Your task to perform on an android device: turn off location history Image 0: 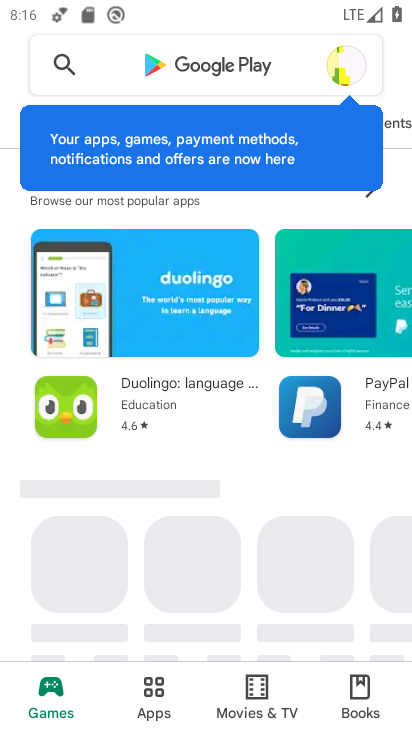
Step 0: press home button
Your task to perform on an android device: turn off location history Image 1: 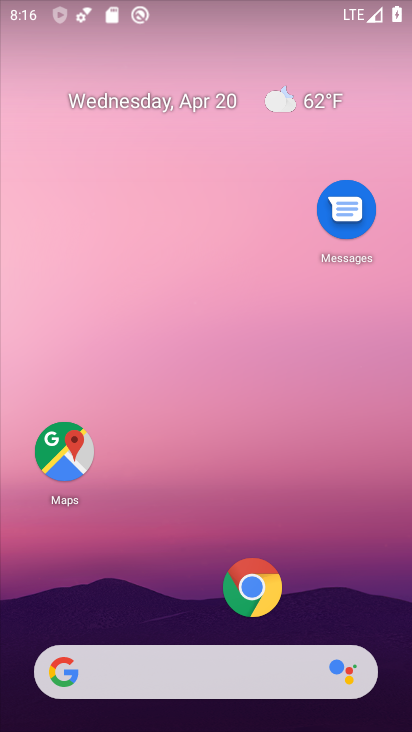
Step 1: drag from (149, 683) to (268, 166)
Your task to perform on an android device: turn off location history Image 2: 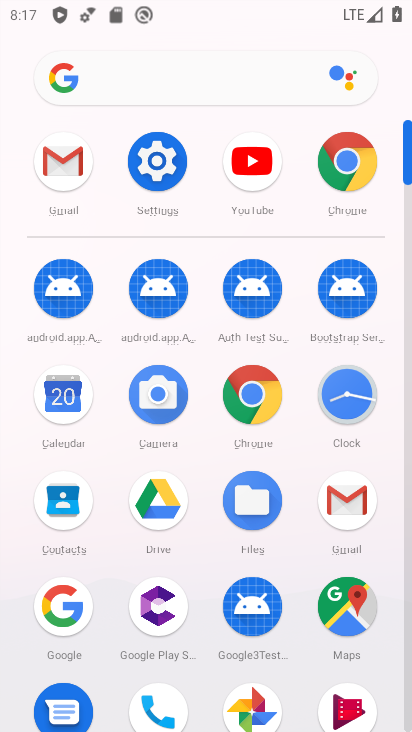
Step 2: click (157, 159)
Your task to perform on an android device: turn off location history Image 3: 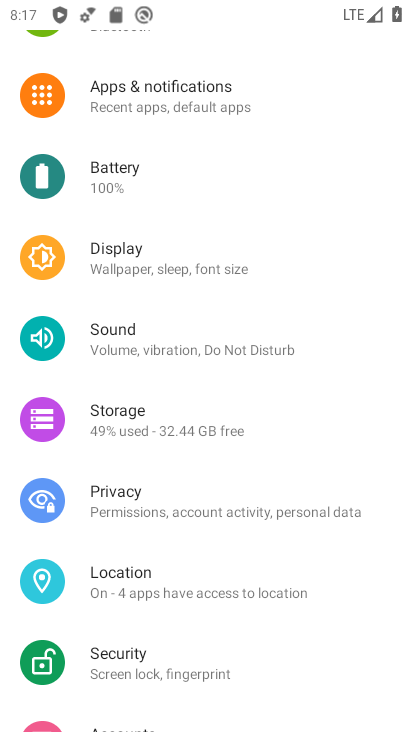
Step 3: click (141, 582)
Your task to perform on an android device: turn off location history Image 4: 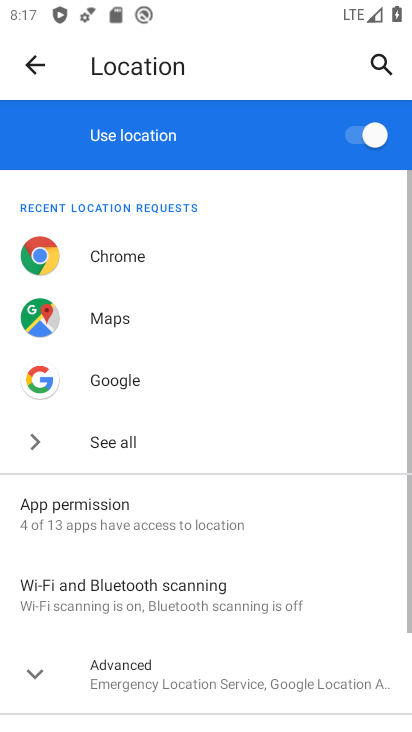
Step 4: click (102, 661)
Your task to perform on an android device: turn off location history Image 5: 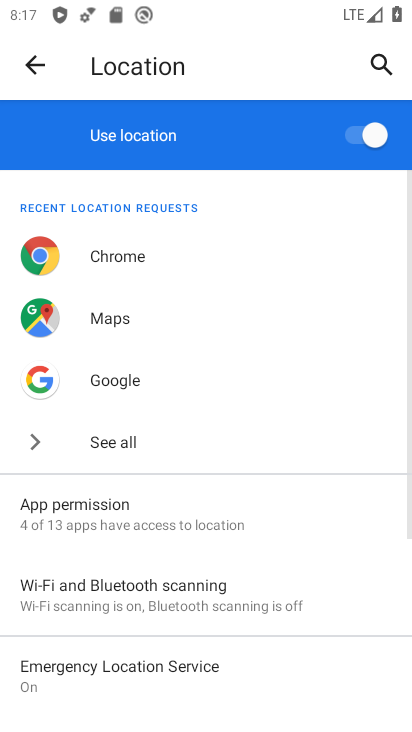
Step 5: drag from (236, 546) to (320, 142)
Your task to perform on an android device: turn off location history Image 6: 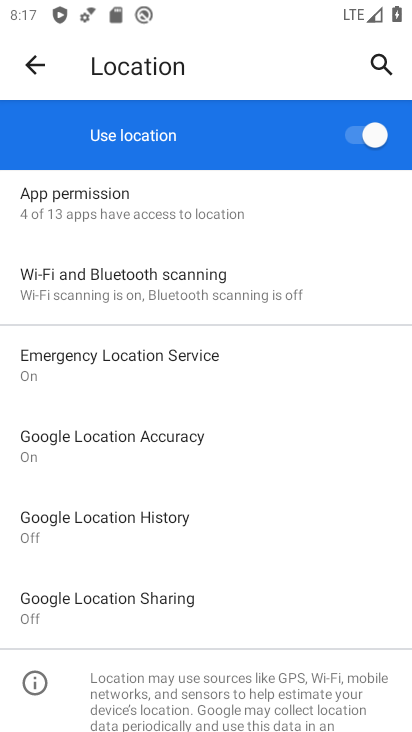
Step 6: click (133, 516)
Your task to perform on an android device: turn off location history Image 7: 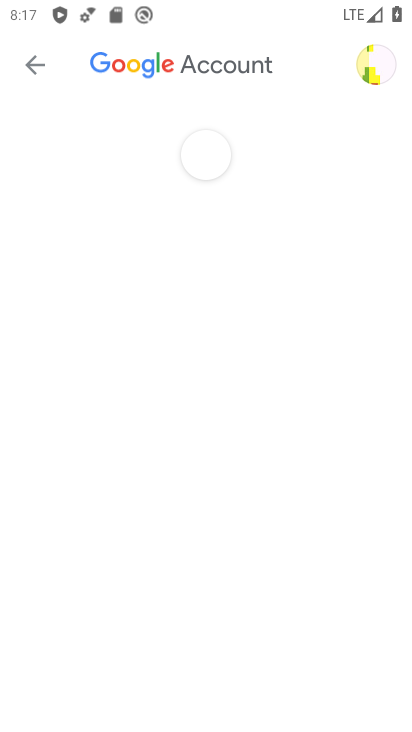
Step 7: drag from (168, 639) to (295, 144)
Your task to perform on an android device: turn off location history Image 8: 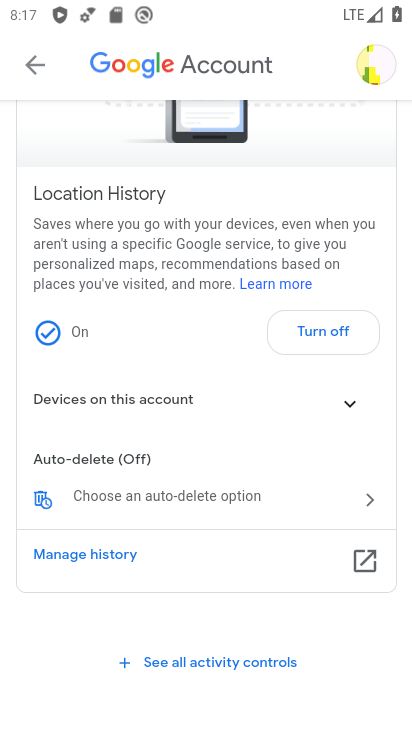
Step 8: click (322, 331)
Your task to perform on an android device: turn off location history Image 9: 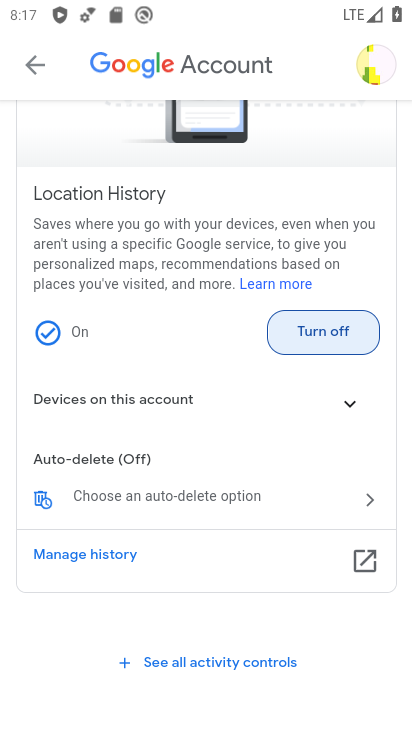
Step 9: click (320, 333)
Your task to perform on an android device: turn off location history Image 10: 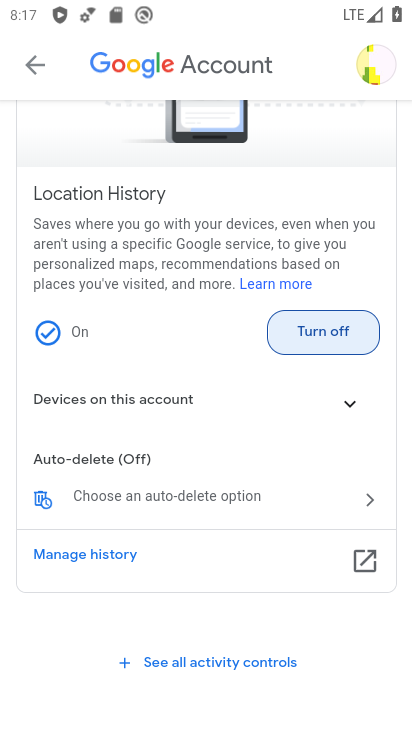
Step 10: click (318, 333)
Your task to perform on an android device: turn off location history Image 11: 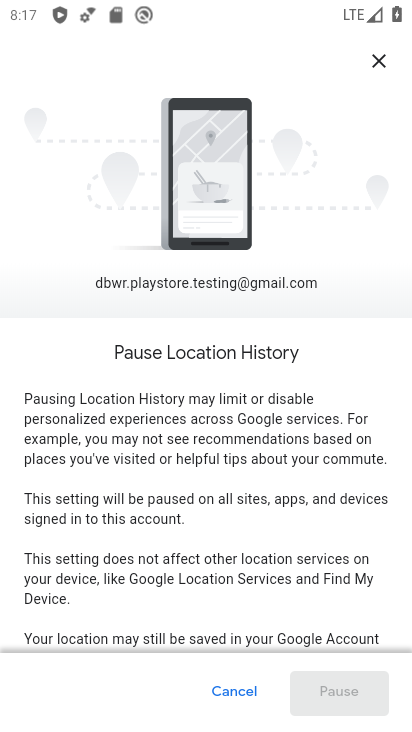
Step 11: drag from (137, 585) to (280, 178)
Your task to perform on an android device: turn off location history Image 12: 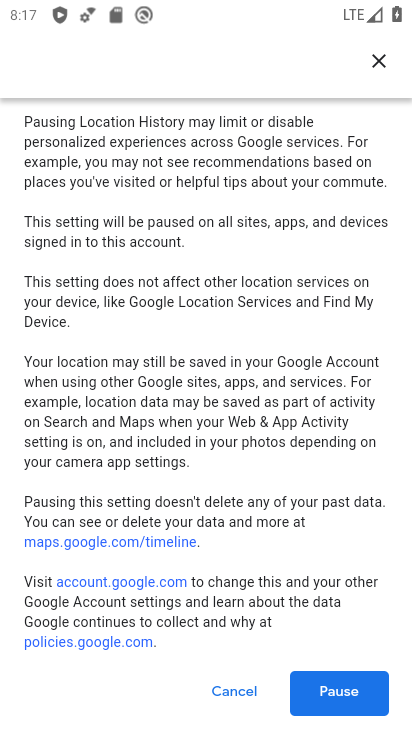
Step 12: click (338, 691)
Your task to perform on an android device: turn off location history Image 13: 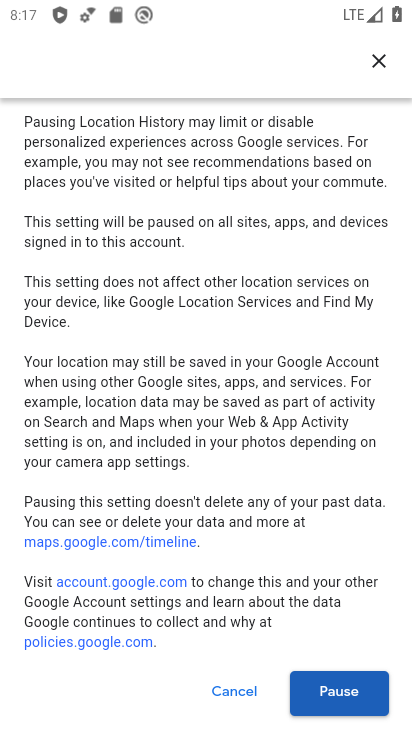
Step 13: click (340, 694)
Your task to perform on an android device: turn off location history Image 14: 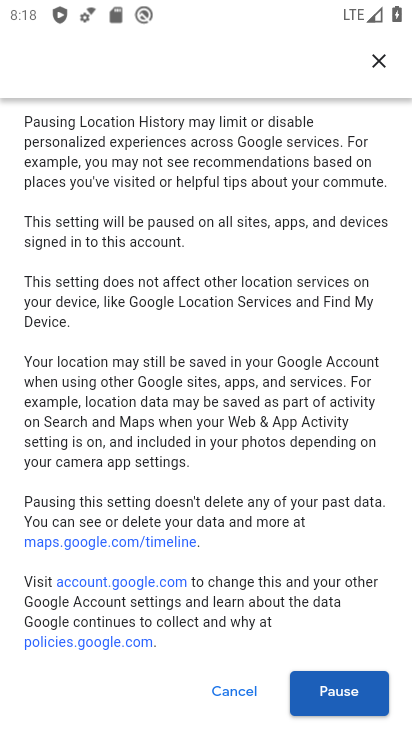
Step 14: click (337, 687)
Your task to perform on an android device: turn off location history Image 15: 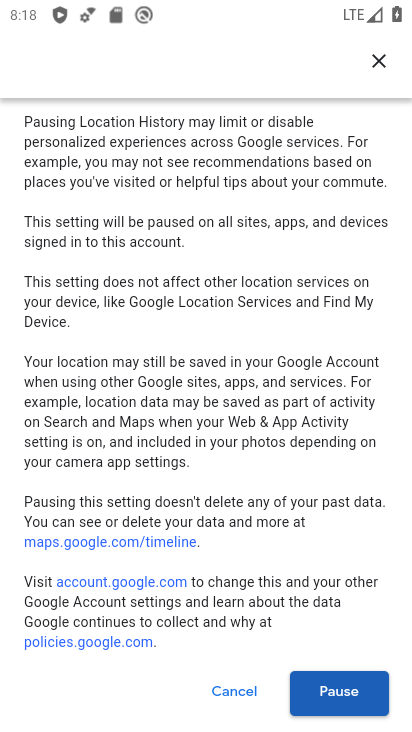
Step 15: click (345, 692)
Your task to perform on an android device: turn off location history Image 16: 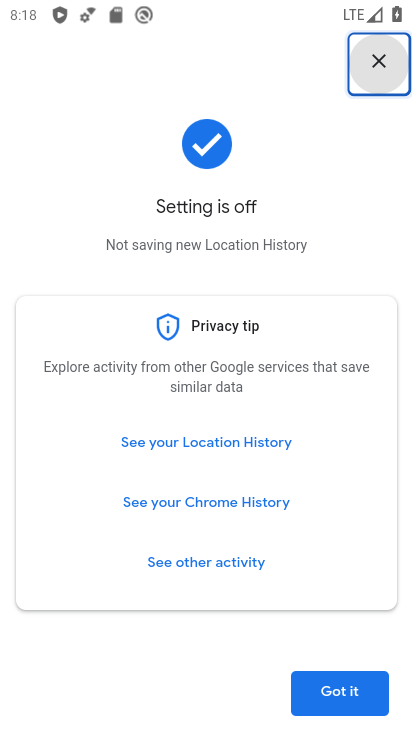
Step 16: click (330, 699)
Your task to perform on an android device: turn off location history Image 17: 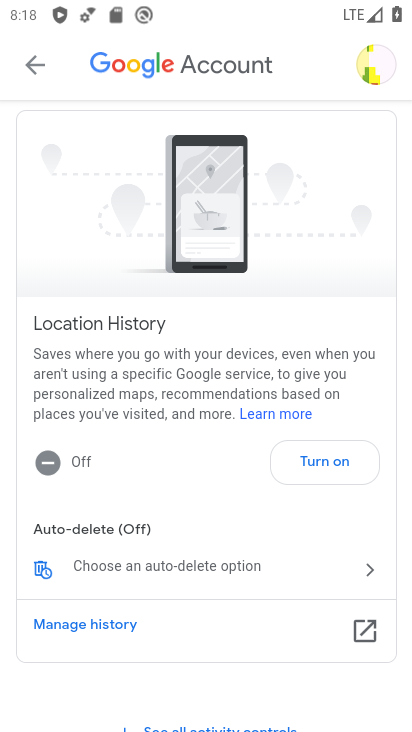
Step 17: task complete